Your task to perform on an android device: turn on translation in the chrome app Image 0: 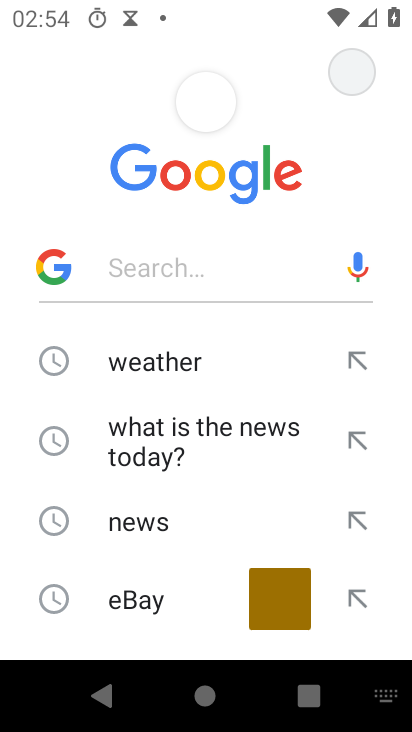
Step 0: press home button
Your task to perform on an android device: turn on translation in the chrome app Image 1: 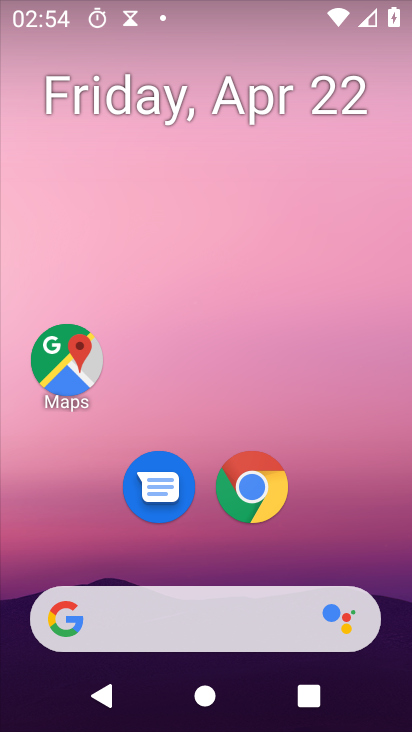
Step 1: drag from (134, 616) to (235, 142)
Your task to perform on an android device: turn on translation in the chrome app Image 2: 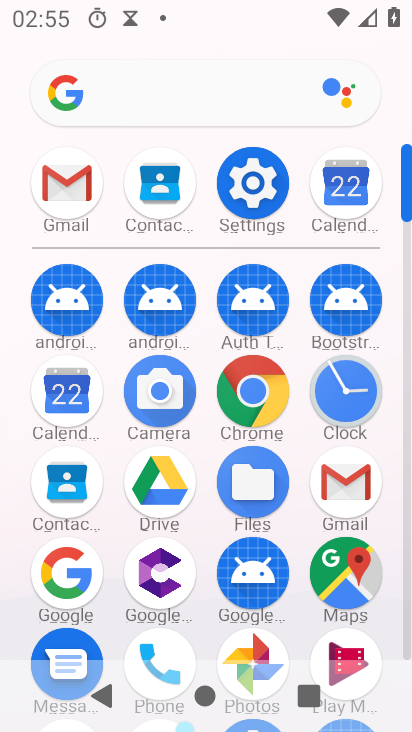
Step 2: click (254, 401)
Your task to perform on an android device: turn on translation in the chrome app Image 3: 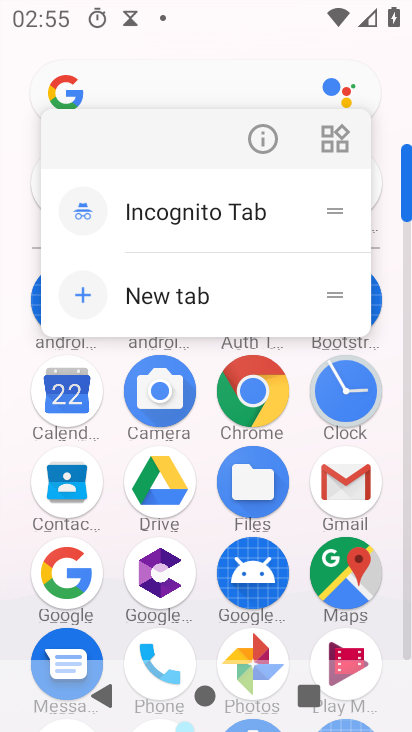
Step 3: click (261, 419)
Your task to perform on an android device: turn on translation in the chrome app Image 4: 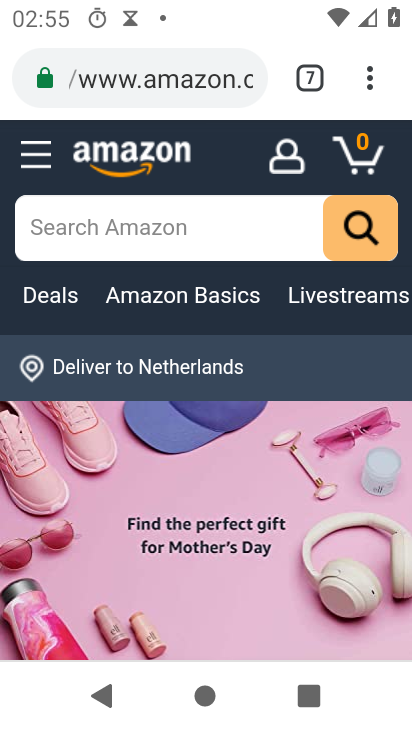
Step 4: drag from (369, 82) to (112, 549)
Your task to perform on an android device: turn on translation in the chrome app Image 5: 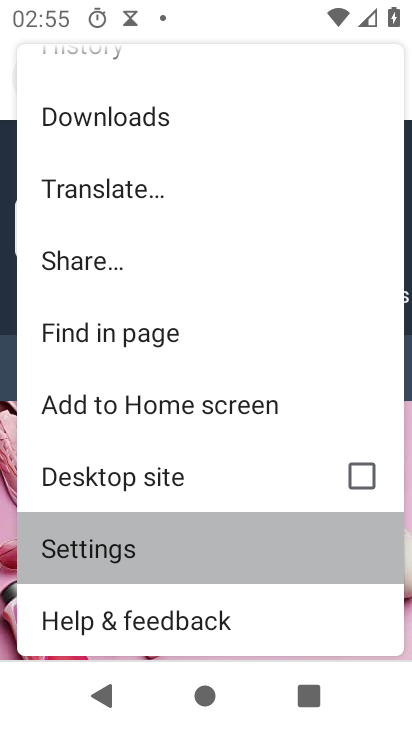
Step 5: click (112, 550)
Your task to perform on an android device: turn on translation in the chrome app Image 6: 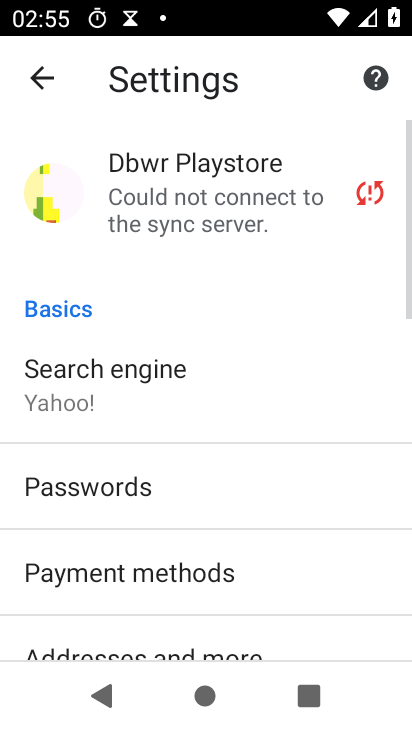
Step 6: drag from (162, 596) to (280, 185)
Your task to perform on an android device: turn on translation in the chrome app Image 7: 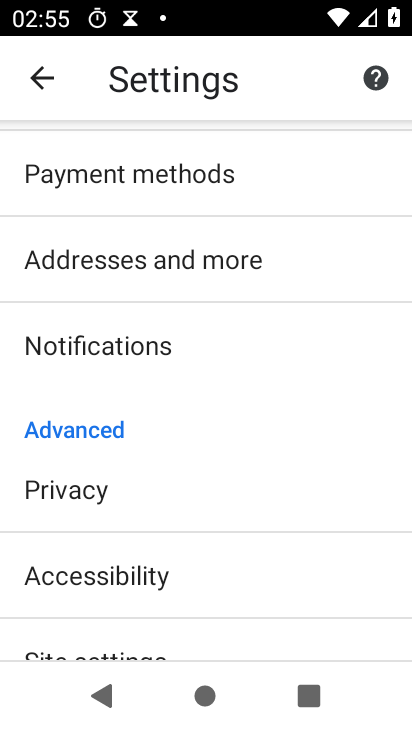
Step 7: drag from (194, 576) to (341, 243)
Your task to perform on an android device: turn on translation in the chrome app Image 8: 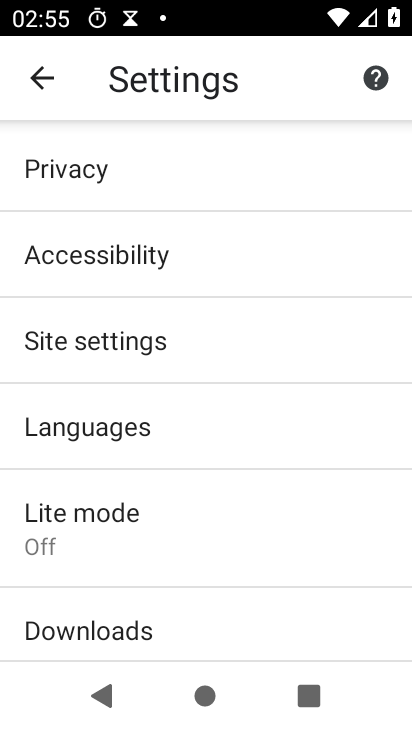
Step 8: click (103, 430)
Your task to perform on an android device: turn on translation in the chrome app Image 9: 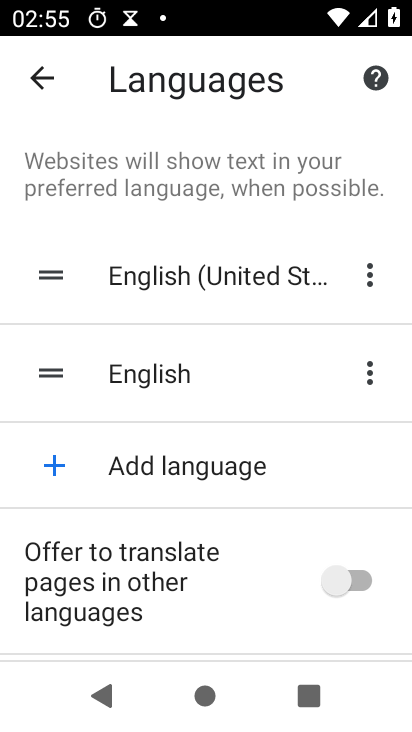
Step 9: click (354, 574)
Your task to perform on an android device: turn on translation in the chrome app Image 10: 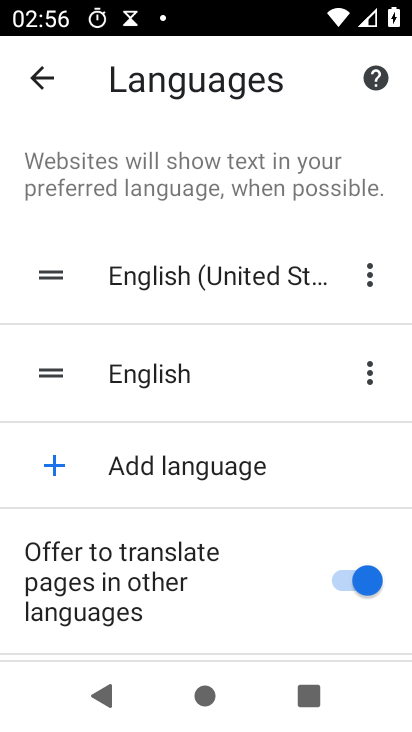
Step 10: task complete